Your task to perform on an android device: Show me productivity apps on the Play Store Image 0: 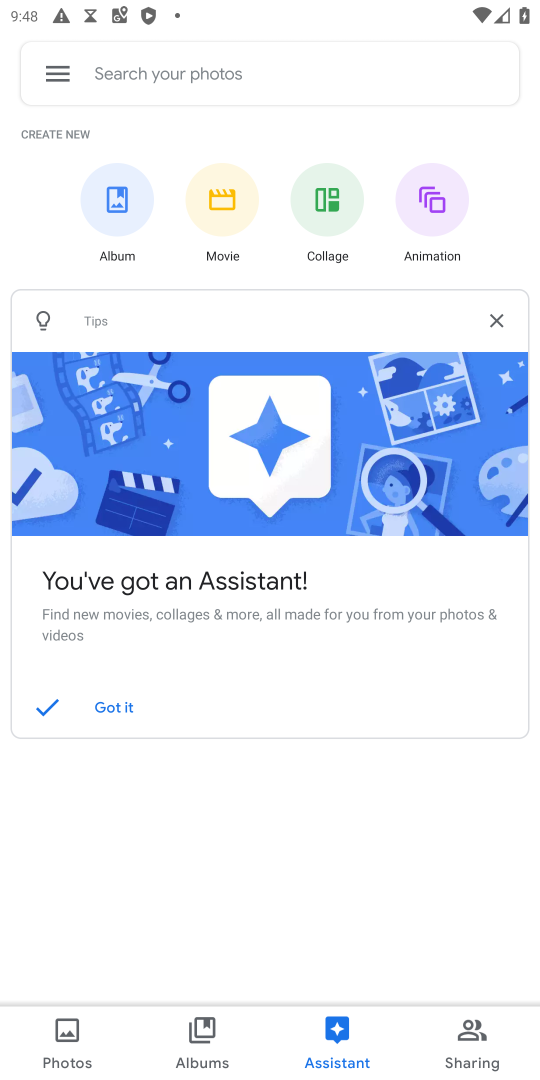
Step 0: press home button
Your task to perform on an android device: Show me productivity apps on the Play Store Image 1: 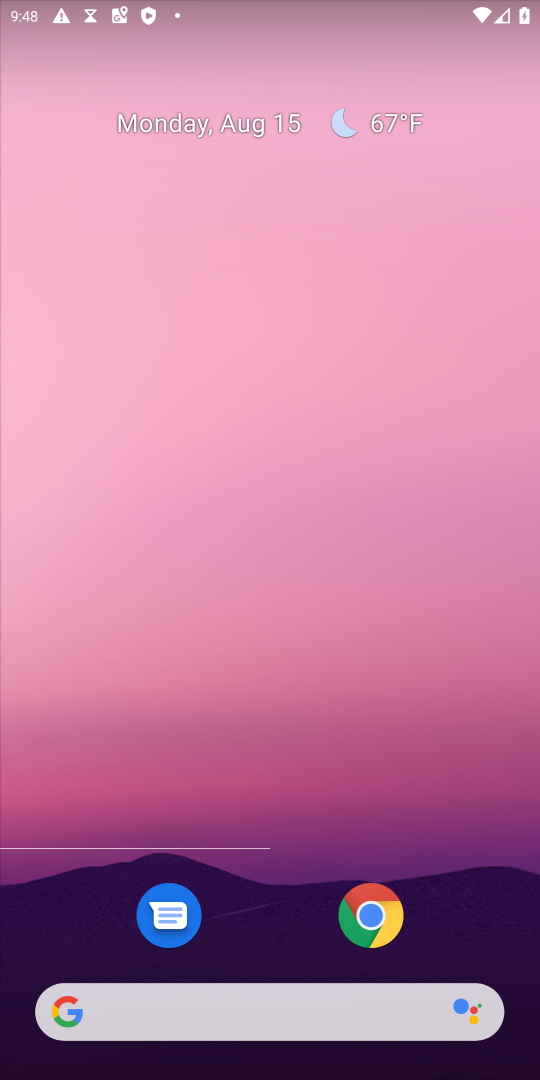
Step 1: drag from (290, 912) to (268, 202)
Your task to perform on an android device: Show me productivity apps on the Play Store Image 2: 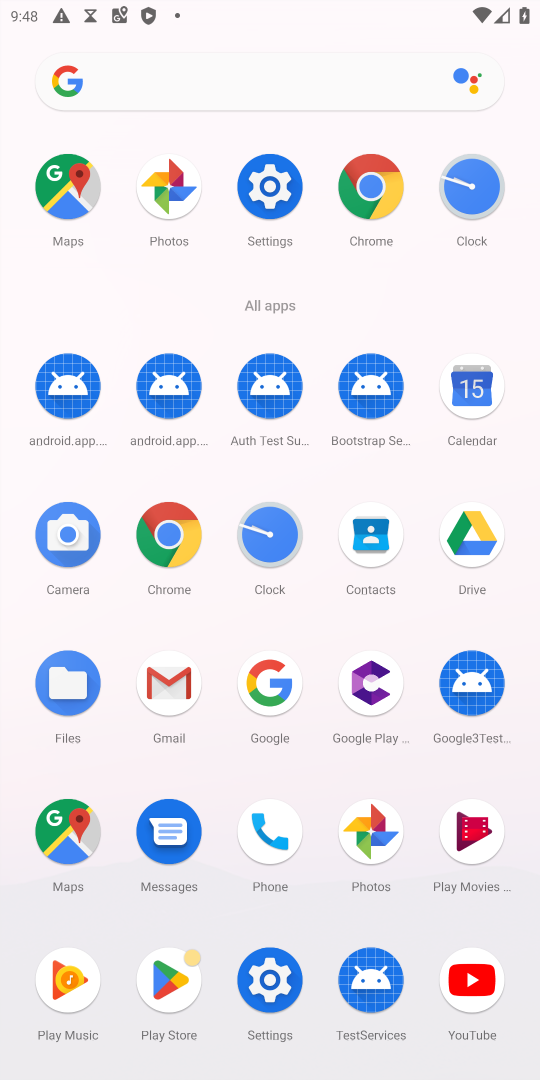
Step 2: click (160, 976)
Your task to perform on an android device: Show me productivity apps on the Play Store Image 3: 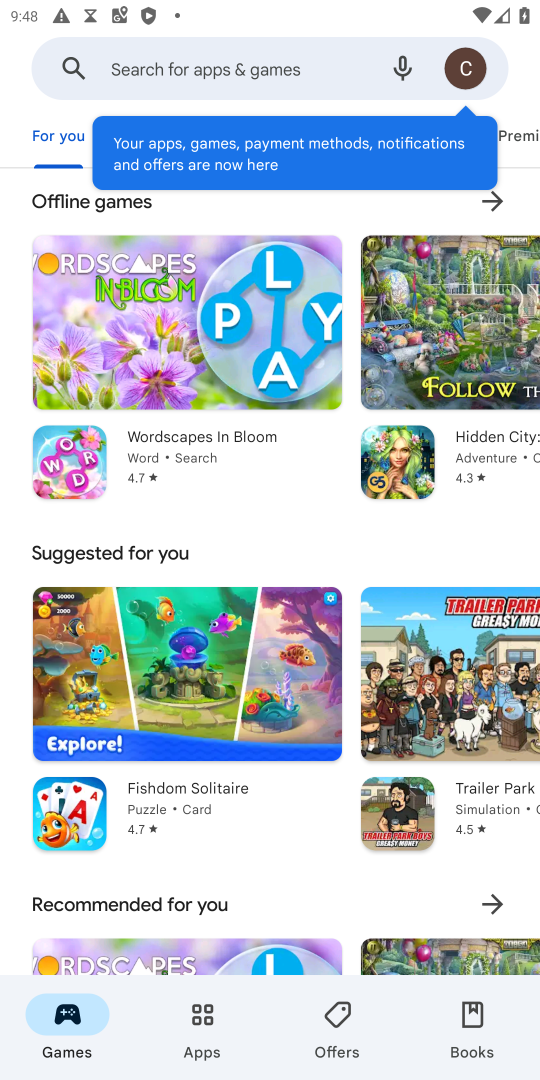
Step 3: click (204, 1016)
Your task to perform on an android device: Show me productivity apps on the Play Store Image 4: 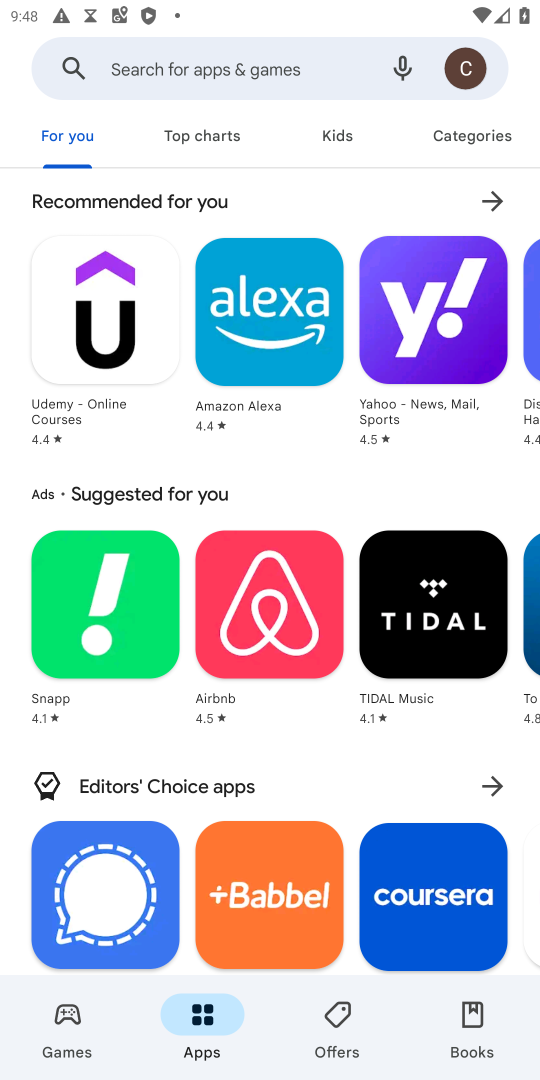
Step 4: click (469, 139)
Your task to perform on an android device: Show me productivity apps on the Play Store Image 5: 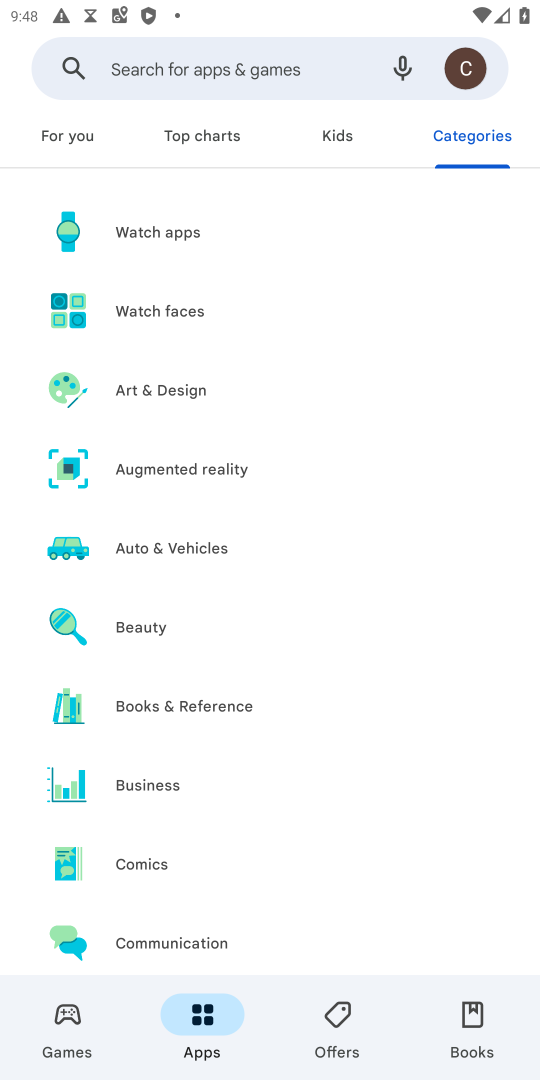
Step 5: drag from (408, 925) to (422, 548)
Your task to perform on an android device: Show me productivity apps on the Play Store Image 6: 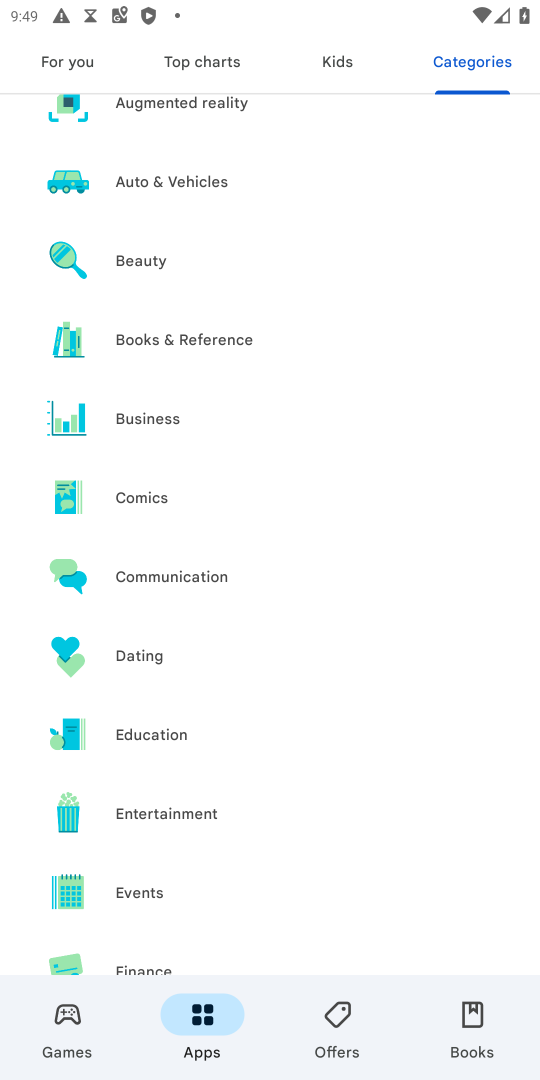
Step 6: drag from (276, 902) to (302, 163)
Your task to perform on an android device: Show me productivity apps on the Play Store Image 7: 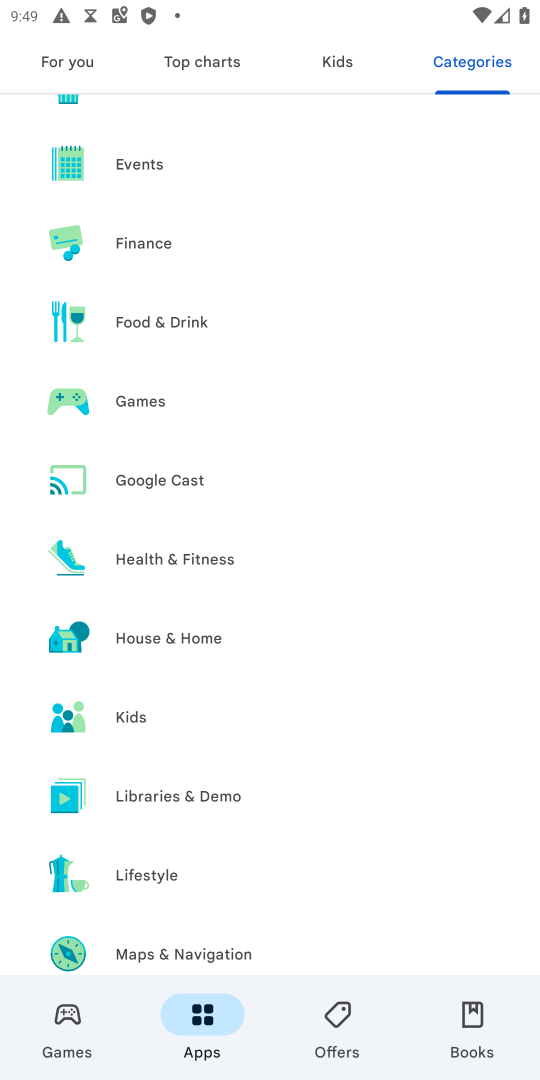
Step 7: drag from (304, 913) to (308, 305)
Your task to perform on an android device: Show me productivity apps on the Play Store Image 8: 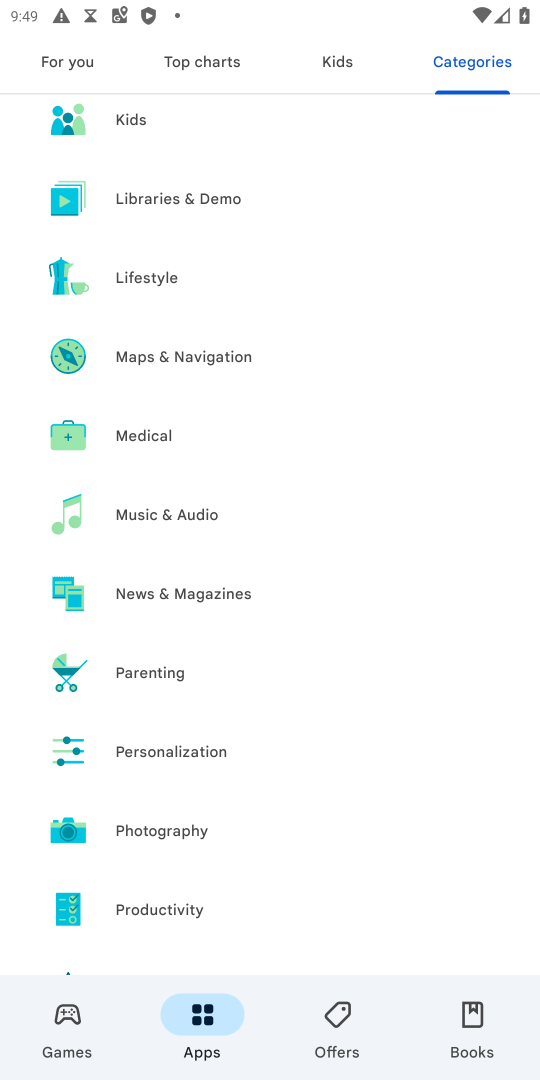
Step 8: click (163, 904)
Your task to perform on an android device: Show me productivity apps on the Play Store Image 9: 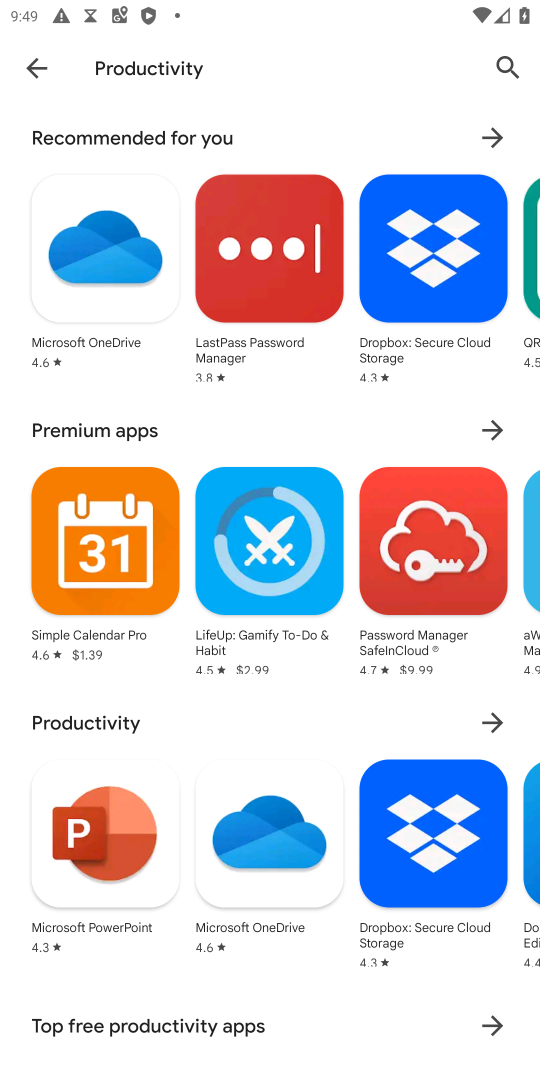
Step 9: task complete